Your task to perform on an android device: Do I have any events today? Image 0: 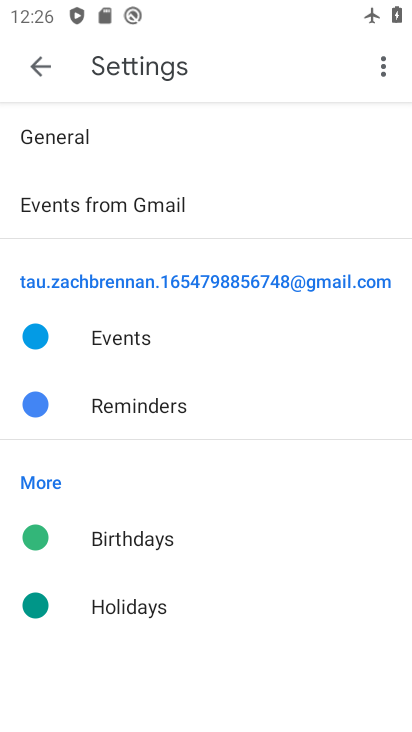
Step 0: press home button
Your task to perform on an android device: Do I have any events today? Image 1: 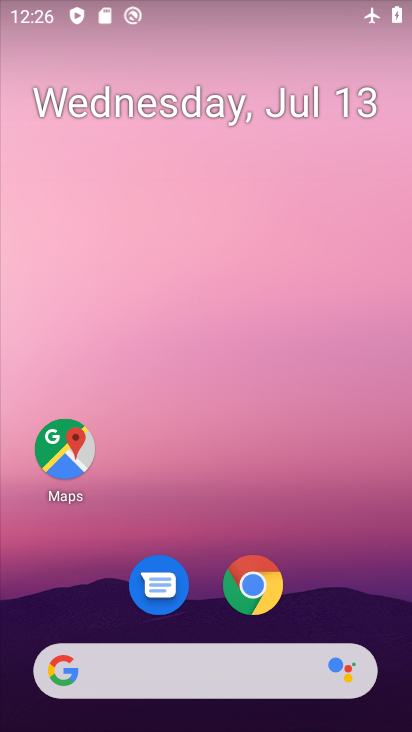
Step 1: drag from (332, 558) to (381, 40)
Your task to perform on an android device: Do I have any events today? Image 2: 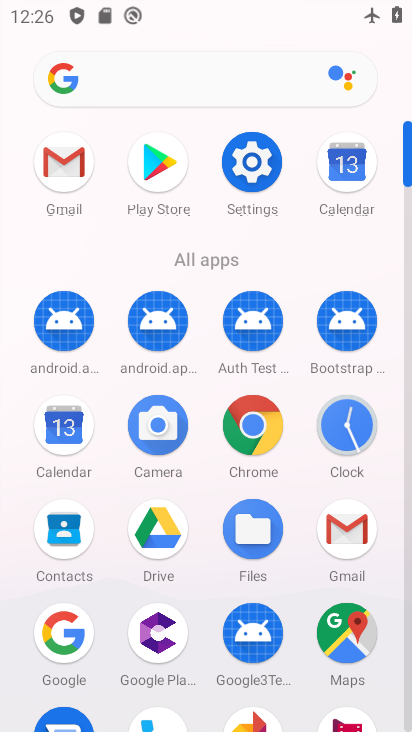
Step 2: click (69, 435)
Your task to perform on an android device: Do I have any events today? Image 3: 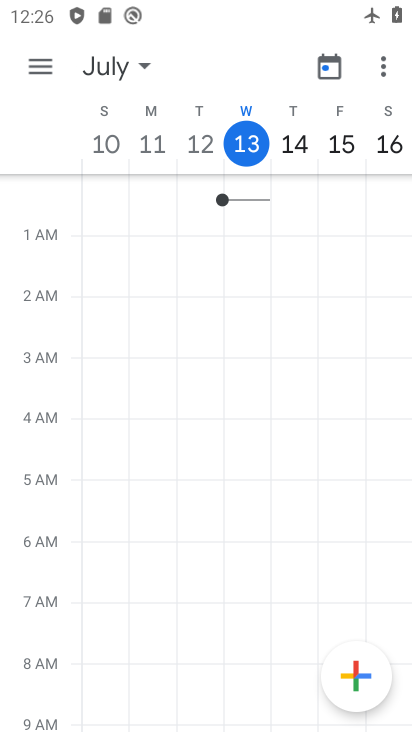
Step 3: drag from (209, 519) to (273, 153)
Your task to perform on an android device: Do I have any events today? Image 4: 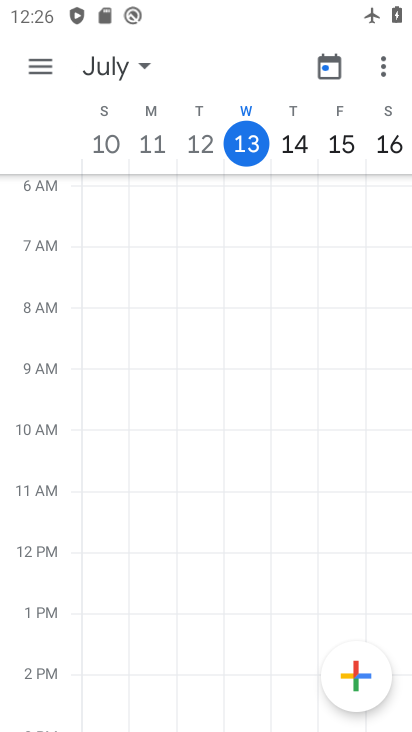
Step 4: drag from (235, 696) to (276, 139)
Your task to perform on an android device: Do I have any events today? Image 5: 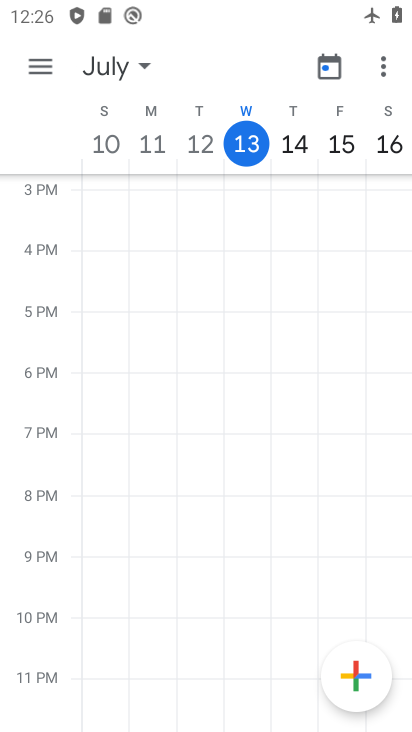
Step 5: drag from (245, 565) to (271, 288)
Your task to perform on an android device: Do I have any events today? Image 6: 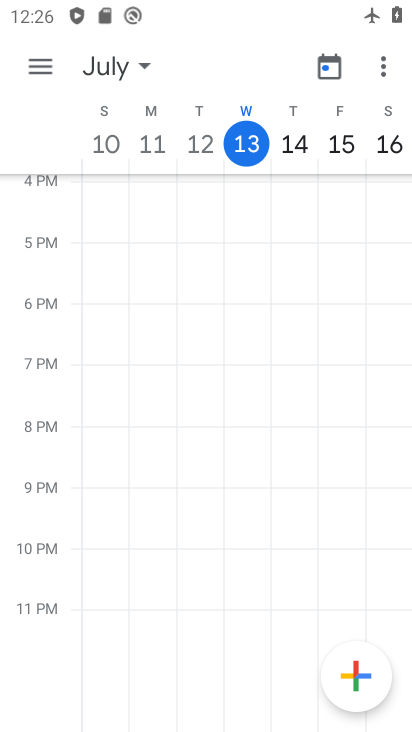
Step 6: click (236, 140)
Your task to perform on an android device: Do I have any events today? Image 7: 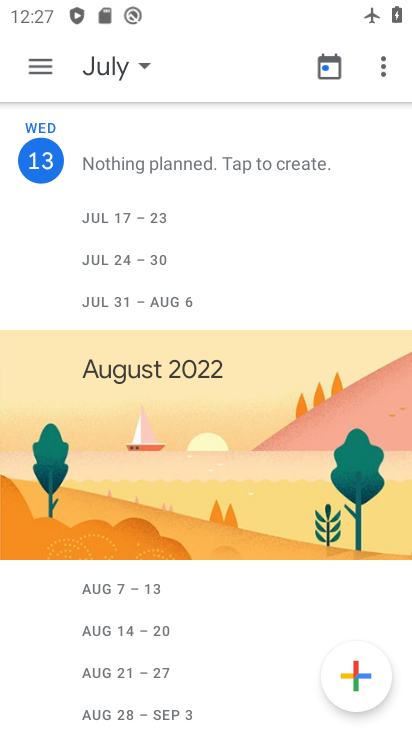
Step 7: task complete